Your task to perform on an android device: turn on data saver in the chrome app Image 0: 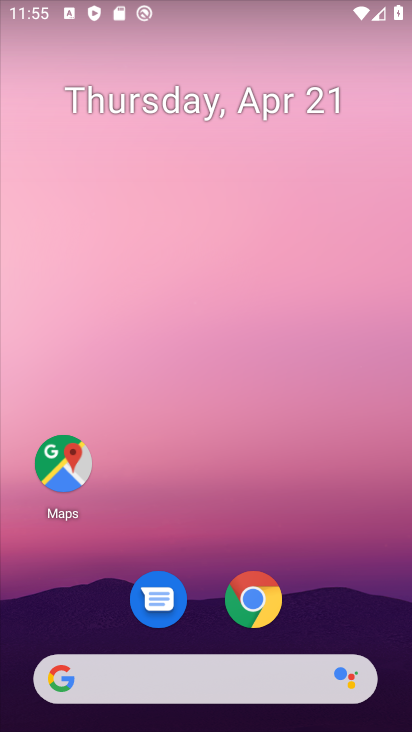
Step 0: click (248, 585)
Your task to perform on an android device: turn on data saver in the chrome app Image 1: 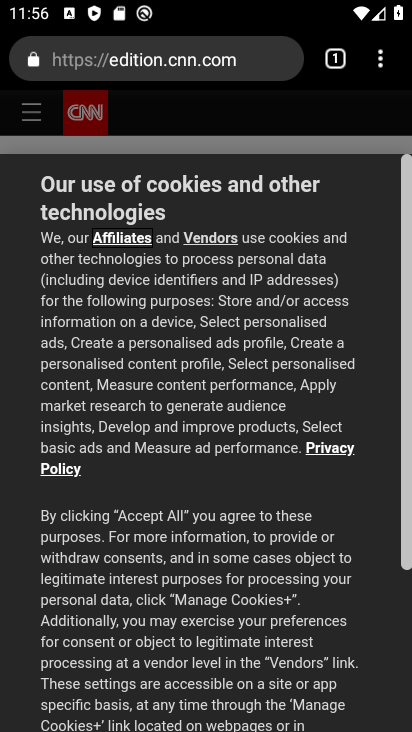
Step 1: click (386, 56)
Your task to perform on an android device: turn on data saver in the chrome app Image 2: 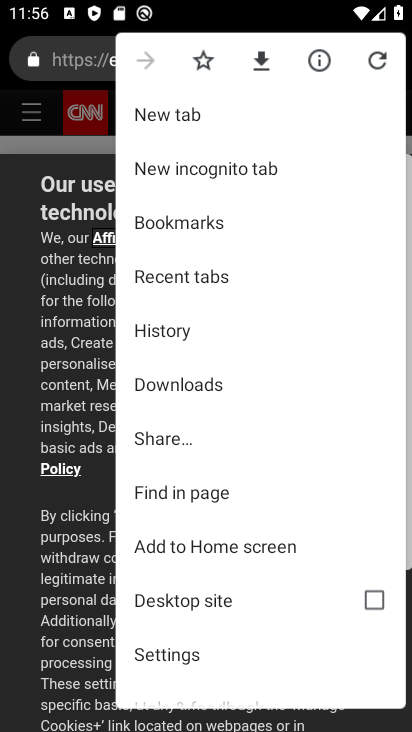
Step 2: click (193, 651)
Your task to perform on an android device: turn on data saver in the chrome app Image 3: 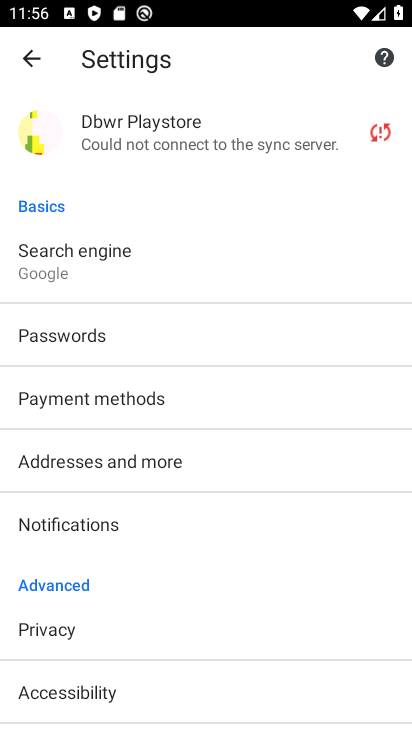
Step 3: drag from (169, 600) to (196, 200)
Your task to perform on an android device: turn on data saver in the chrome app Image 4: 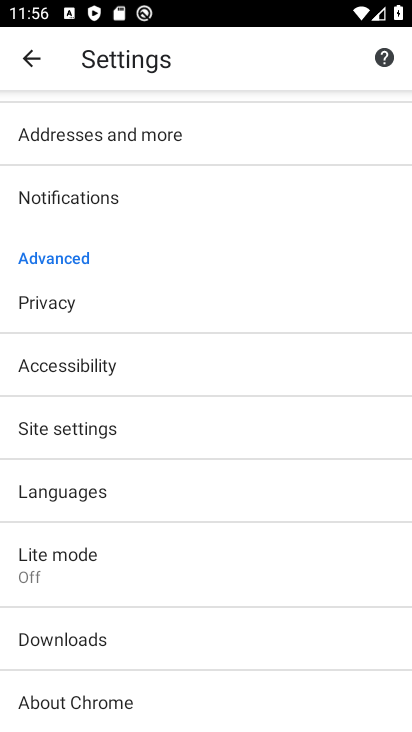
Step 4: click (109, 559)
Your task to perform on an android device: turn on data saver in the chrome app Image 5: 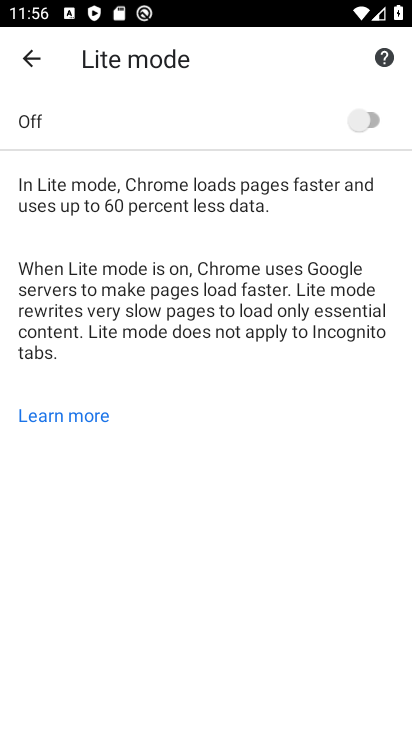
Step 5: click (372, 128)
Your task to perform on an android device: turn on data saver in the chrome app Image 6: 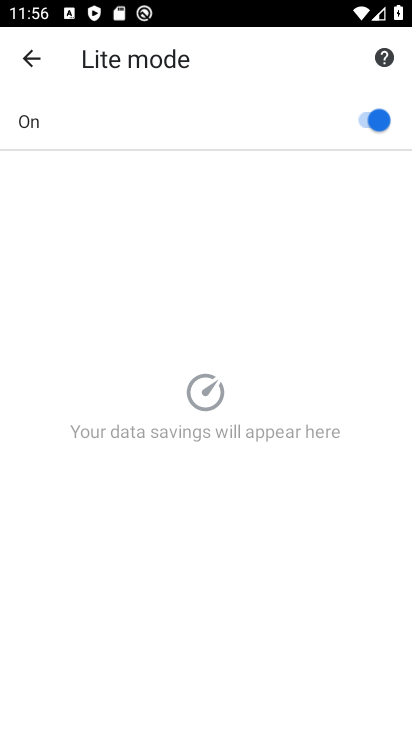
Step 6: task complete